Your task to perform on an android device: Turn off the flashlight Image 0: 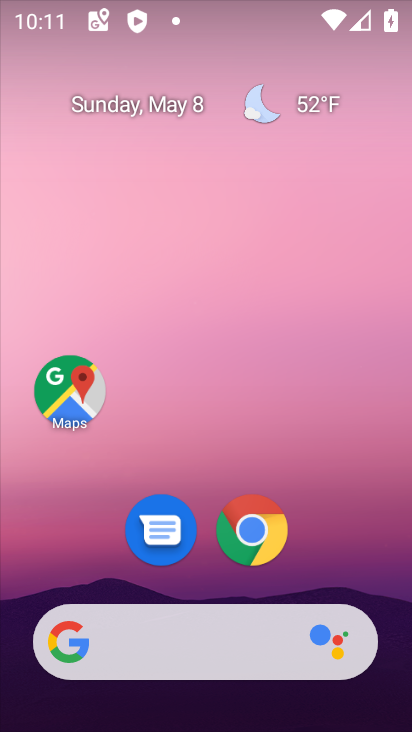
Step 0: drag from (386, 346) to (382, 167)
Your task to perform on an android device: Turn off the flashlight Image 1: 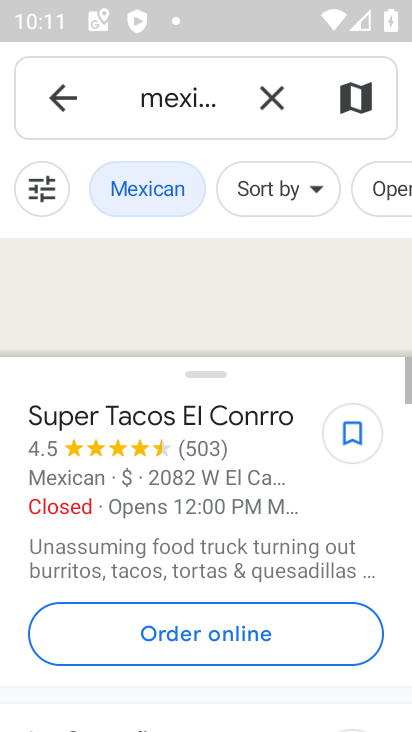
Step 1: press home button
Your task to perform on an android device: Turn off the flashlight Image 2: 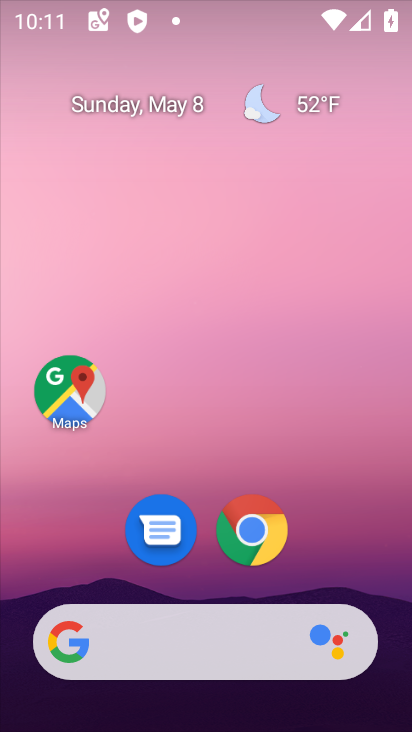
Step 2: drag from (304, 566) to (334, 210)
Your task to perform on an android device: Turn off the flashlight Image 3: 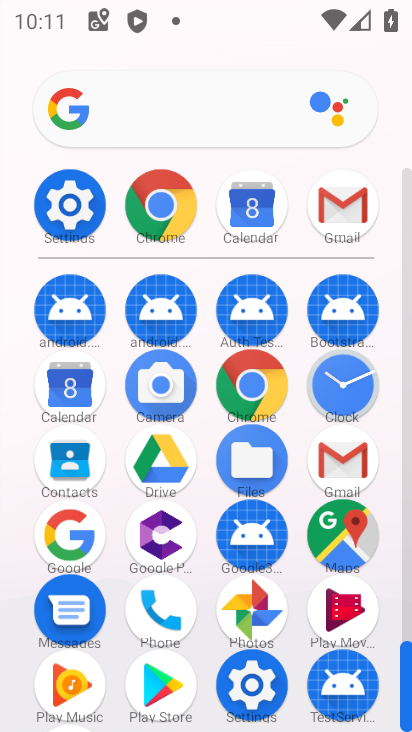
Step 3: click (265, 687)
Your task to perform on an android device: Turn off the flashlight Image 4: 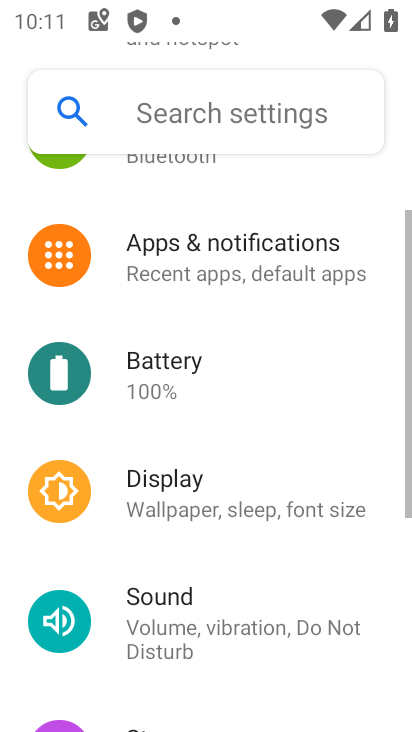
Step 4: click (264, 109)
Your task to perform on an android device: Turn off the flashlight Image 5: 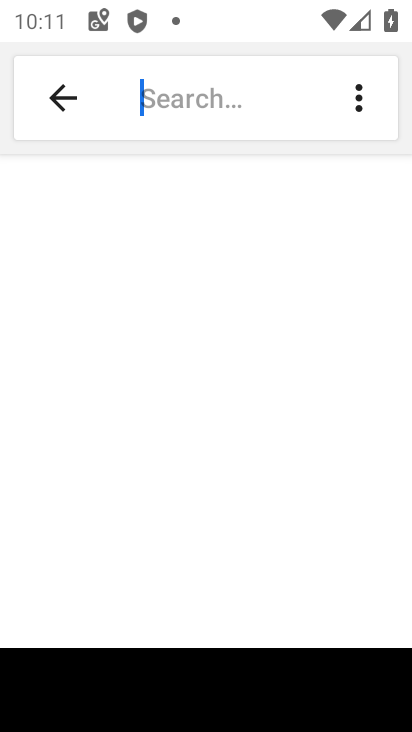
Step 5: type "flashlight"
Your task to perform on an android device: Turn off the flashlight Image 6: 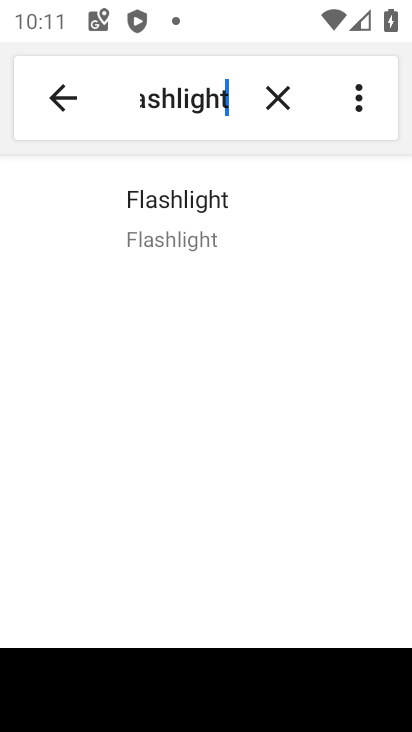
Step 6: click (200, 225)
Your task to perform on an android device: Turn off the flashlight Image 7: 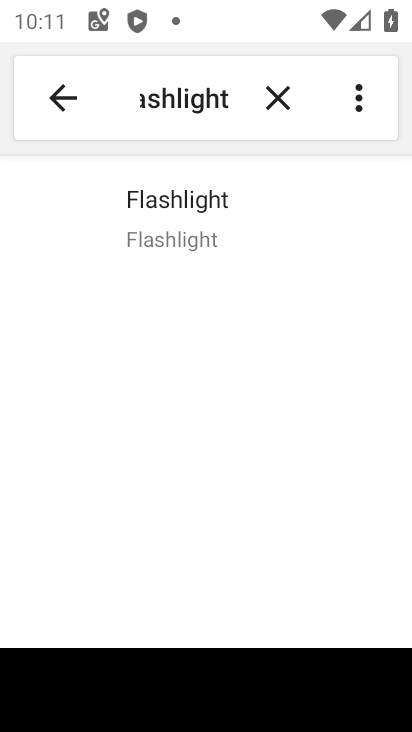
Step 7: task complete